Your task to perform on an android device: uninstall "Spotify: Music and Podcasts" Image 0: 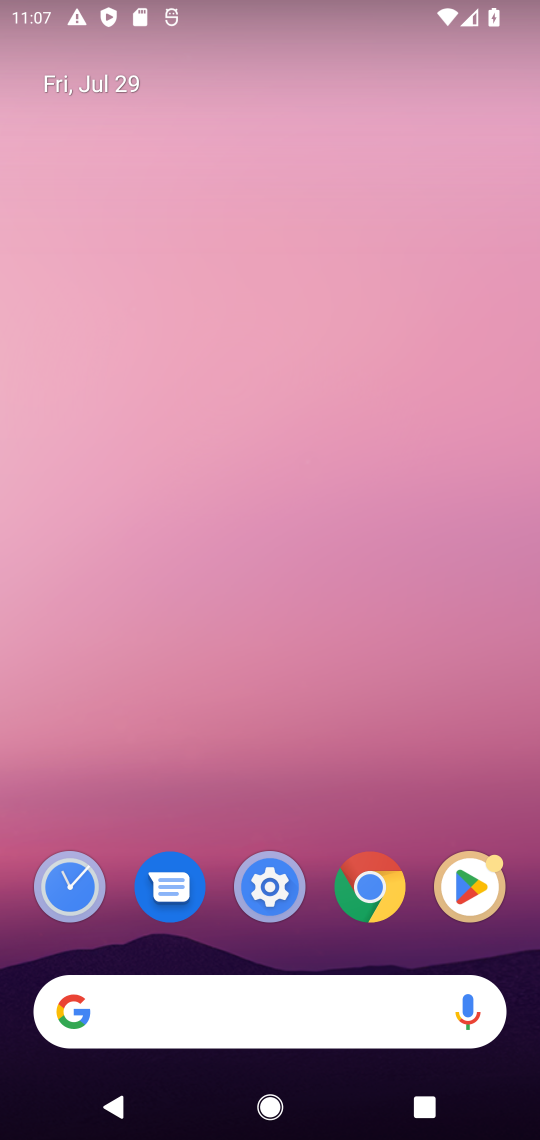
Step 0: drag from (218, 1027) to (268, 187)
Your task to perform on an android device: uninstall "Spotify: Music and Podcasts" Image 1: 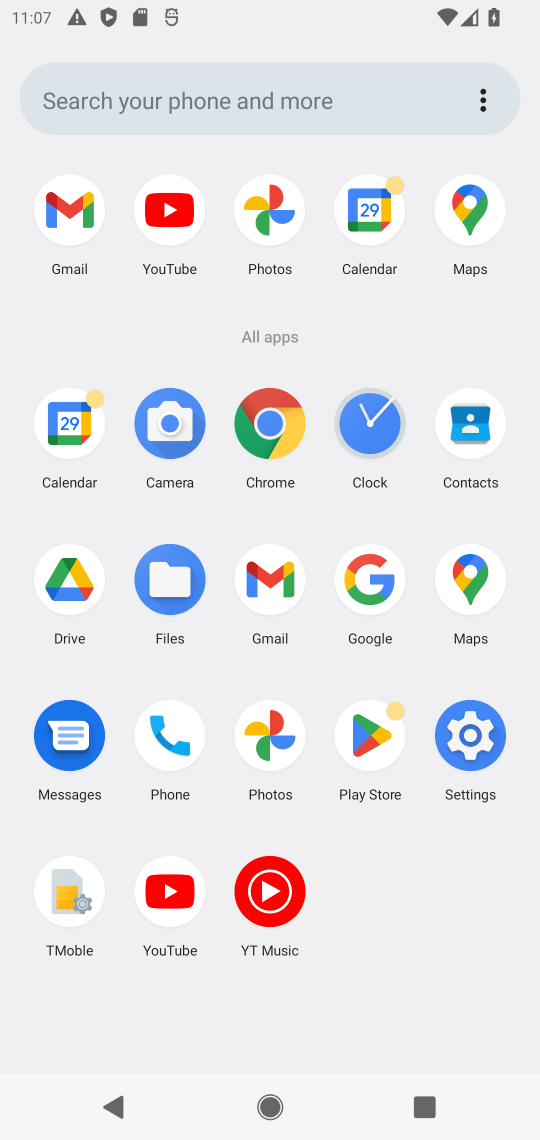
Step 1: click (363, 739)
Your task to perform on an android device: uninstall "Spotify: Music and Podcasts" Image 2: 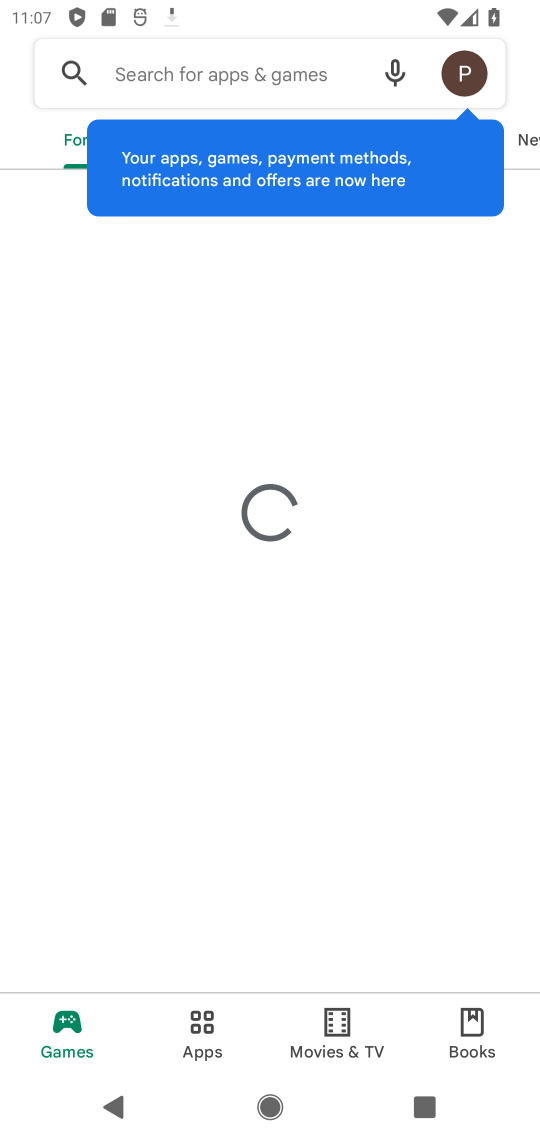
Step 2: click (298, 80)
Your task to perform on an android device: uninstall "Spotify: Music and Podcasts" Image 3: 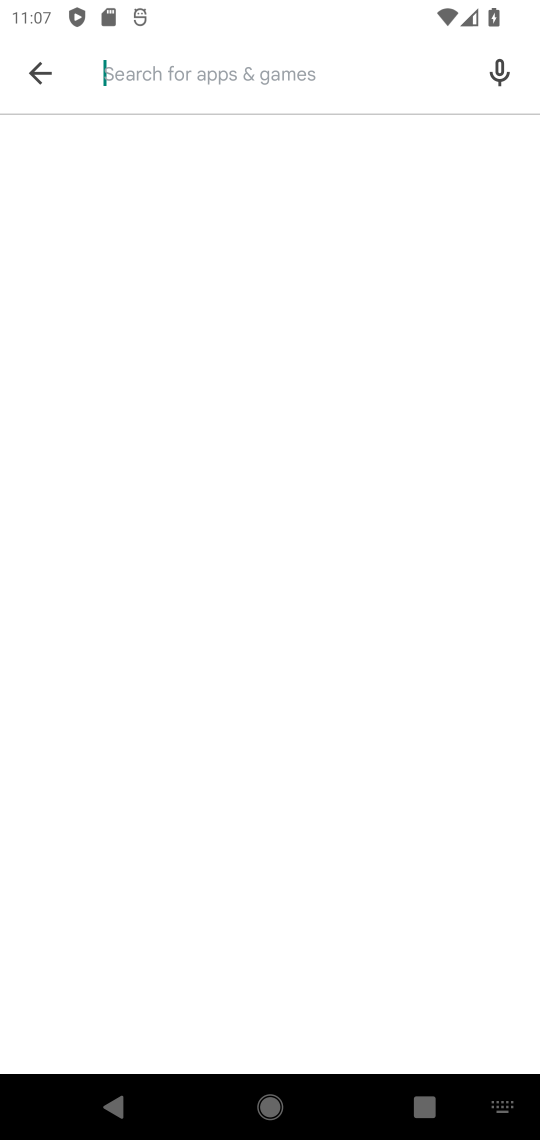
Step 3: click (307, 75)
Your task to perform on an android device: uninstall "Spotify: Music and Podcasts" Image 4: 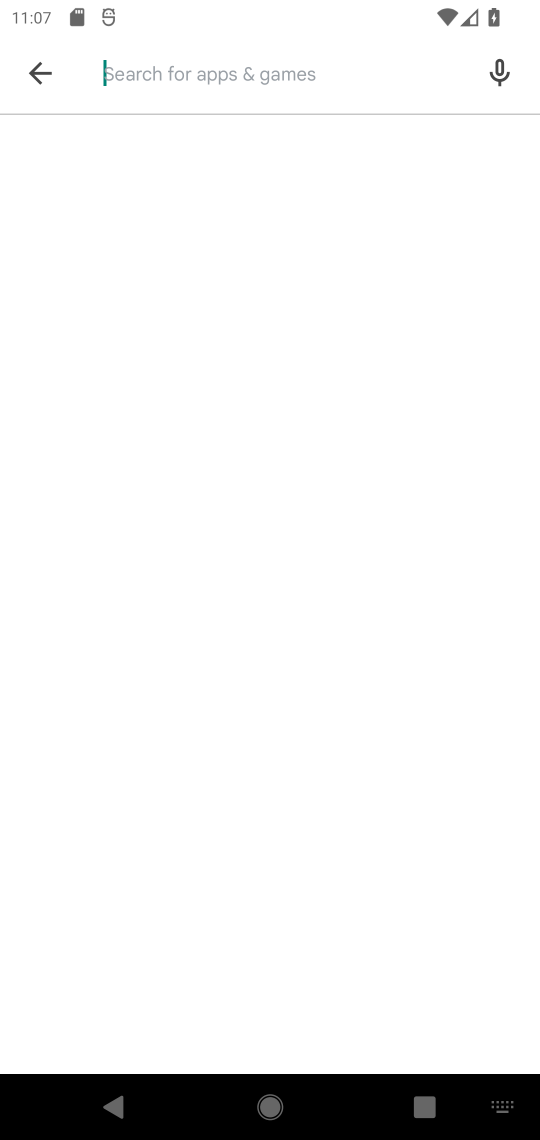
Step 4: type "Spotify: Music and Podcasts"
Your task to perform on an android device: uninstall "Spotify: Music and Podcasts" Image 5: 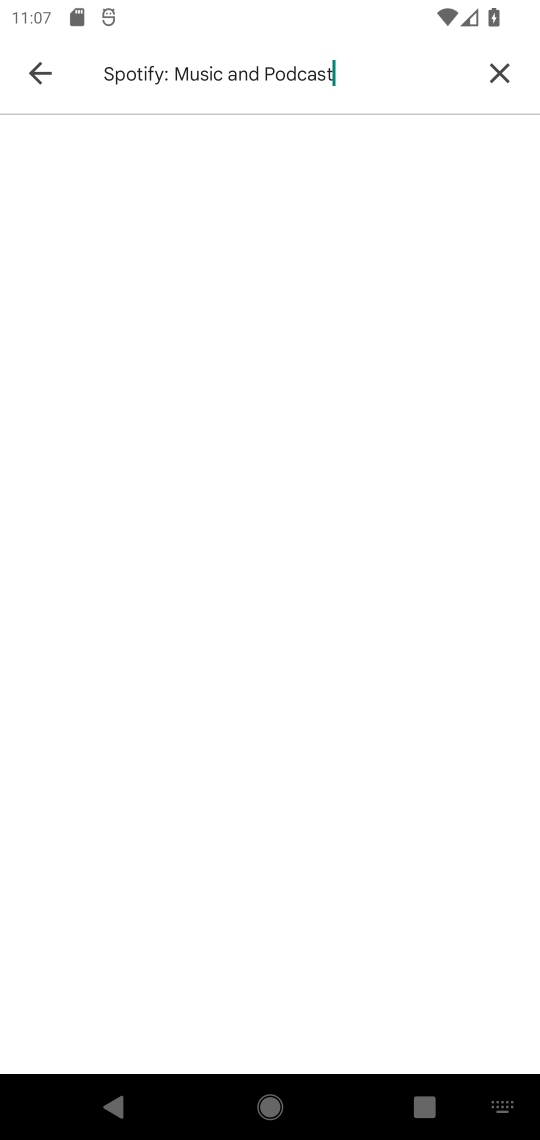
Step 5: type ""
Your task to perform on an android device: uninstall "Spotify: Music and Podcasts" Image 6: 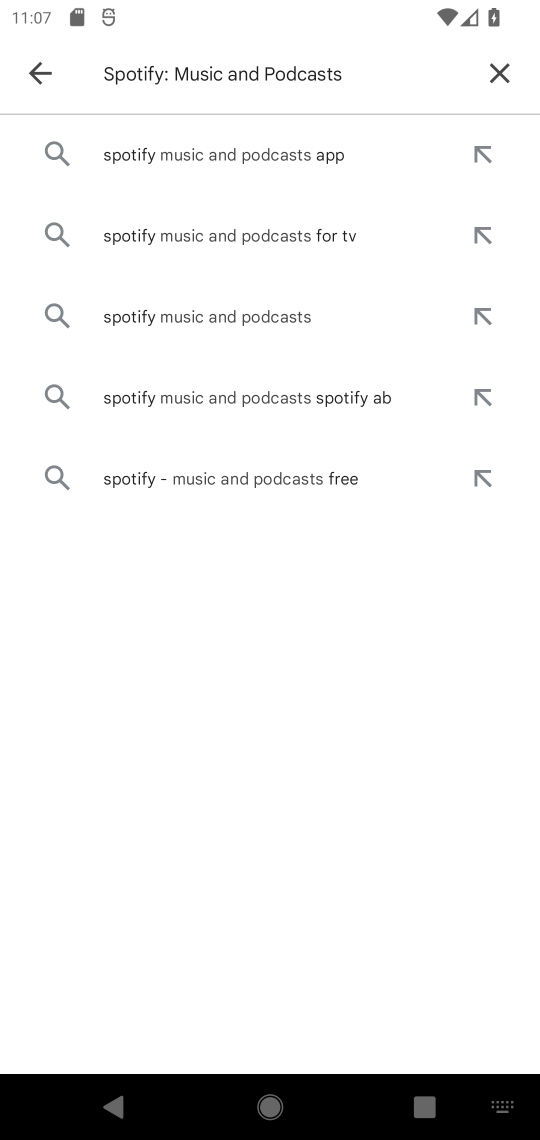
Step 6: click (302, 165)
Your task to perform on an android device: uninstall "Spotify: Music and Podcasts" Image 7: 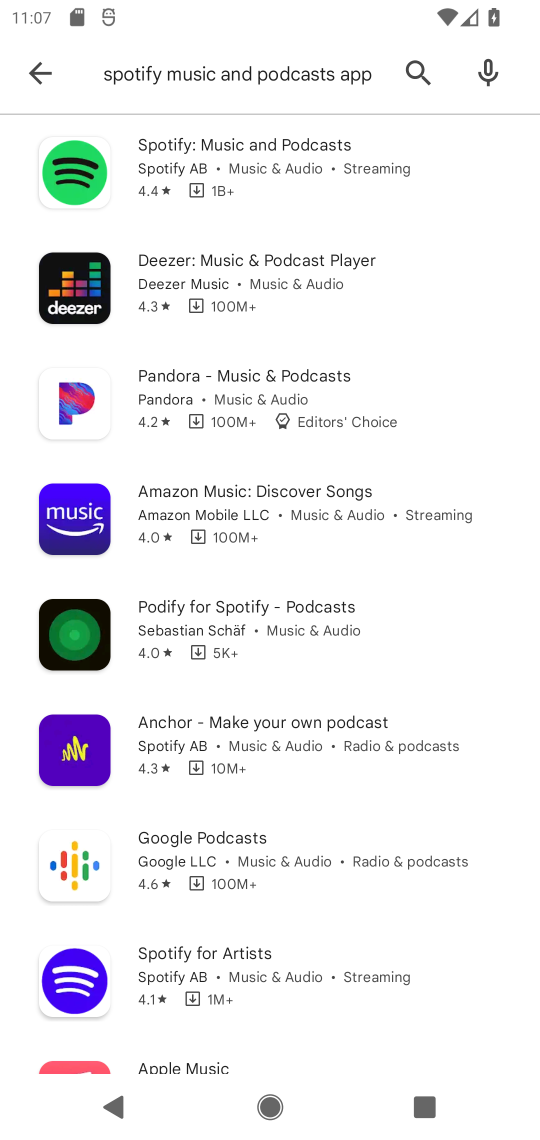
Step 7: click (307, 142)
Your task to perform on an android device: uninstall "Spotify: Music and Podcasts" Image 8: 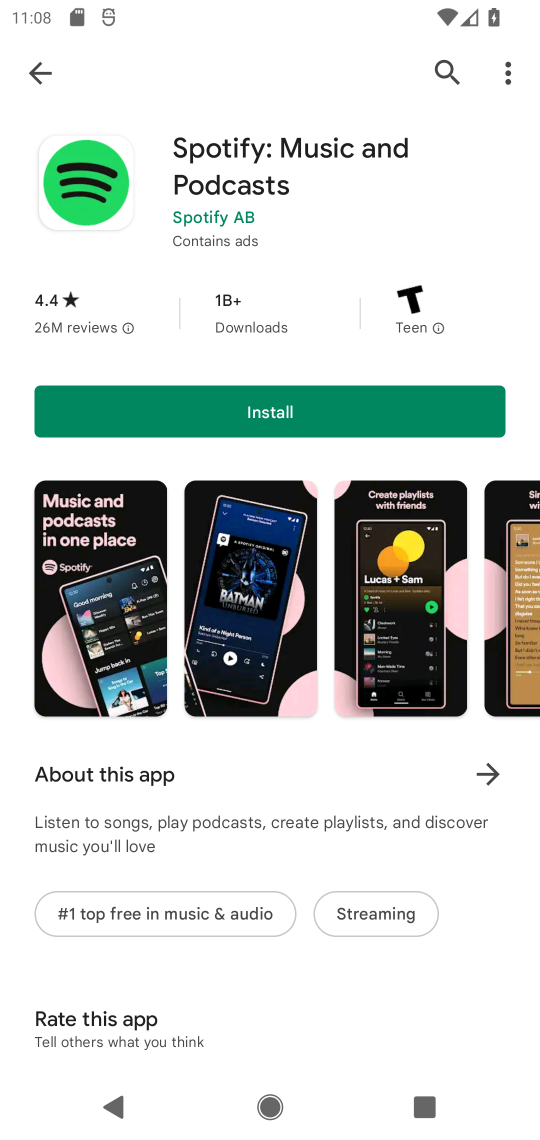
Step 8: task complete